Your task to perform on an android device: toggle javascript in the chrome app Image 0: 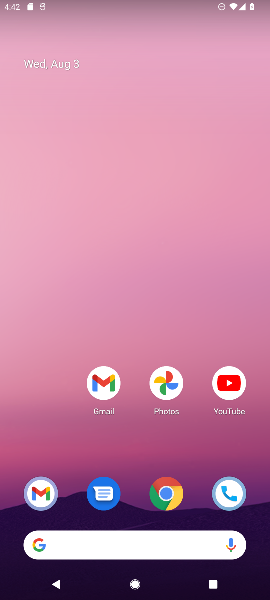
Step 0: press home button
Your task to perform on an android device: toggle javascript in the chrome app Image 1: 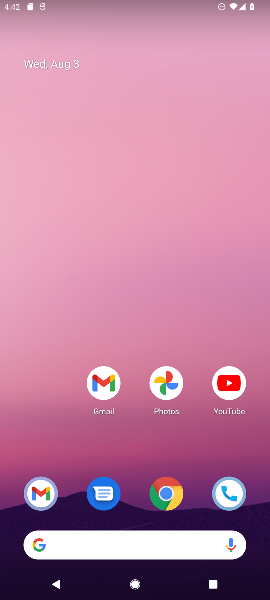
Step 1: drag from (55, 439) to (75, 172)
Your task to perform on an android device: toggle javascript in the chrome app Image 2: 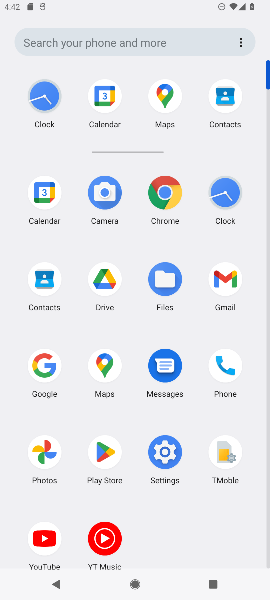
Step 2: click (168, 198)
Your task to perform on an android device: toggle javascript in the chrome app Image 3: 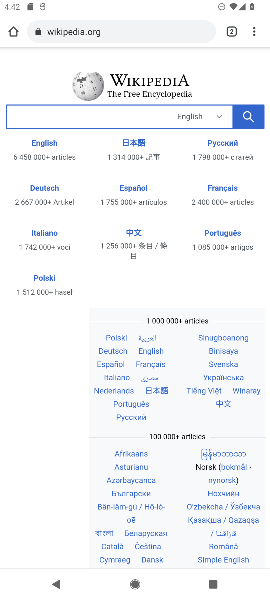
Step 3: click (255, 30)
Your task to perform on an android device: toggle javascript in the chrome app Image 4: 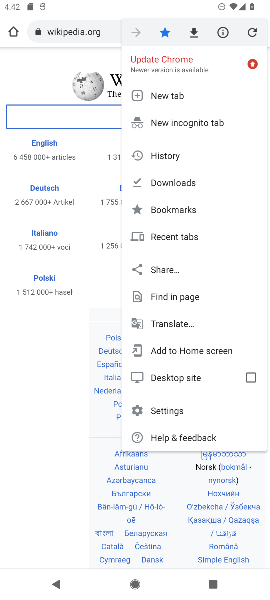
Step 4: click (188, 408)
Your task to perform on an android device: toggle javascript in the chrome app Image 5: 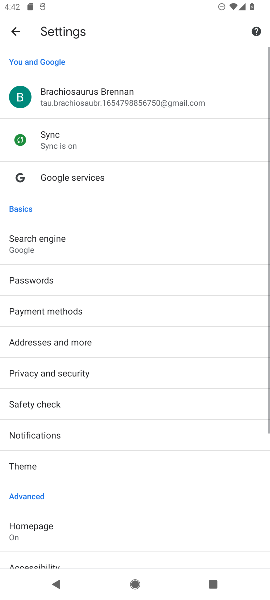
Step 5: drag from (174, 439) to (194, 344)
Your task to perform on an android device: toggle javascript in the chrome app Image 6: 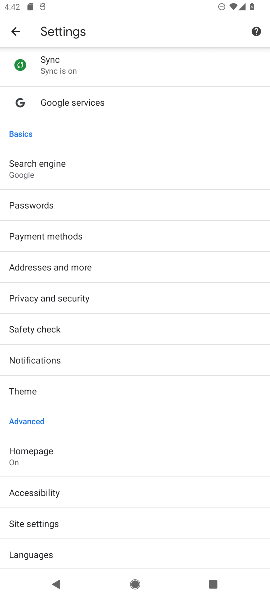
Step 6: drag from (201, 414) to (206, 371)
Your task to perform on an android device: toggle javascript in the chrome app Image 7: 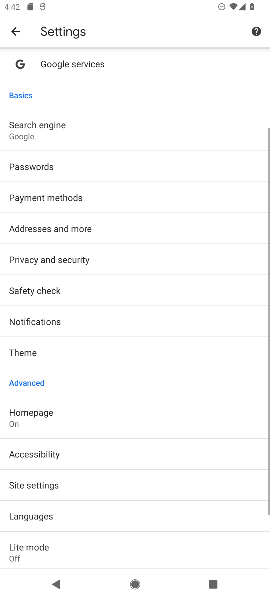
Step 7: drag from (184, 453) to (202, 352)
Your task to perform on an android device: toggle javascript in the chrome app Image 8: 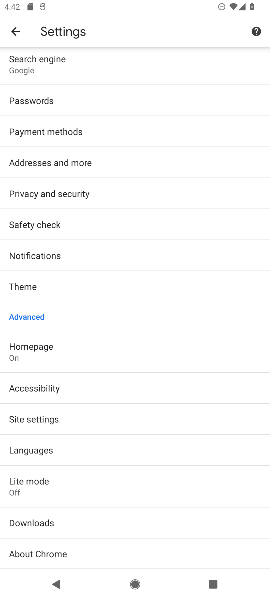
Step 8: drag from (172, 466) to (191, 294)
Your task to perform on an android device: toggle javascript in the chrome app Image 9: 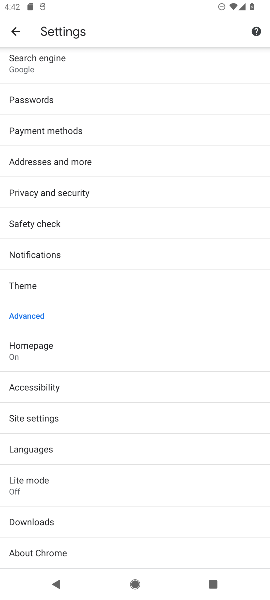
Step 9: click (183, 418)
Your task to perform on an android device: toggle javascript in the chrome app Image 10: 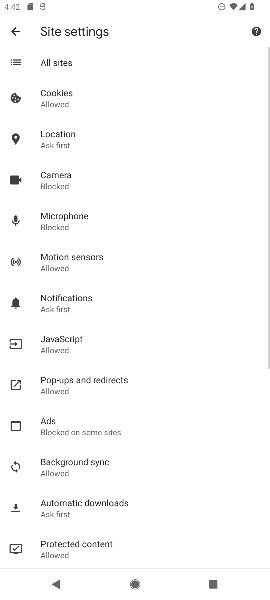
Step 10: drag from (181, 454) to (196, 316)
Your task to perform on an android device: toggle javascript in the chrome app Image 11: 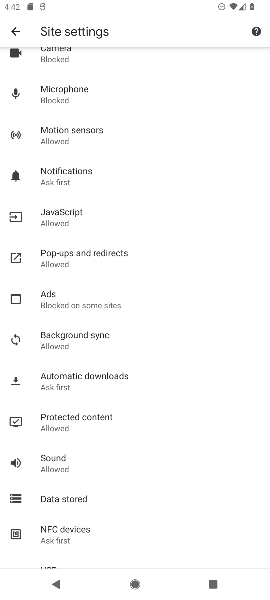
Step 11: drag from (193, 444) to (196, 333)
Your task to perform on an android device: toggle javascript in the chrome app Image 12: 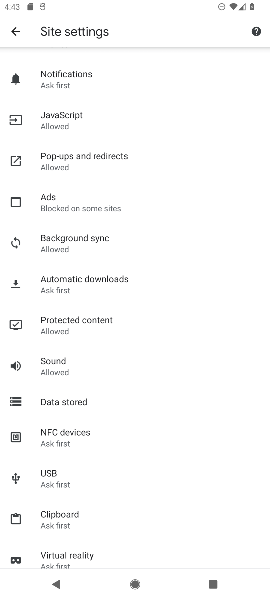
Step 12: drag from (183, 459) to (193, 371)
Your task to perform on an android device: toggle javascript in the chrome app Image 13: 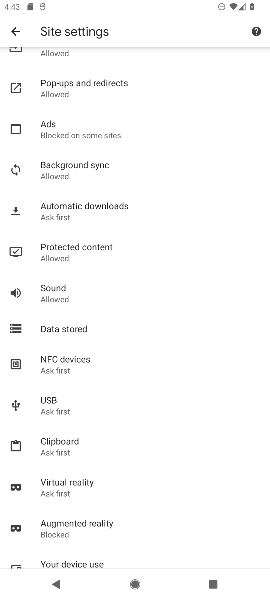
Step 13: drag from (190, 204) to (191, 325)
Your task to perform on an android device: toggle javascript in the chrome app Image 14: 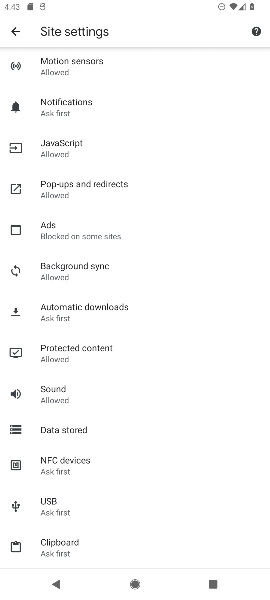
Step 14: drag from (190, 187) to (182, 326)
Your task to perform on an android device: toggle javascript in the chrome app Image 15: 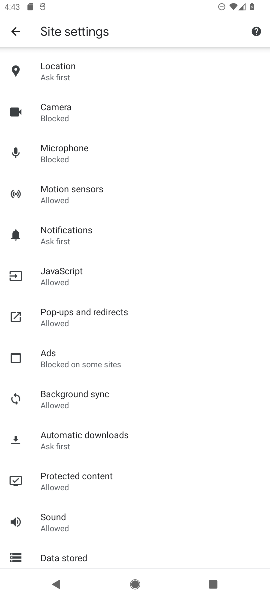
Step 15: drag from (179, 161) to (173, 281)
Your task to perform on an android device: toggle javascript in the chrome app Image 16: 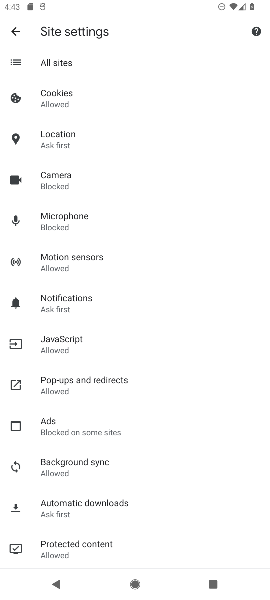
Step 16: click (96, 343)
Your task to perform on an android device: toggle javascript in the chrome app Image 17: 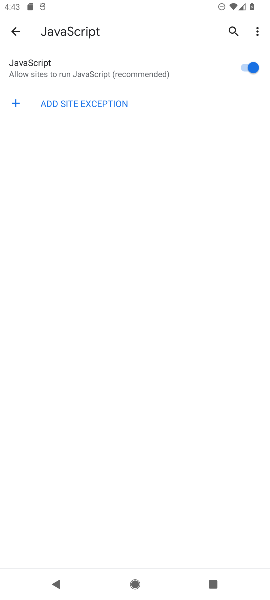
Step 17: click (252, 67)
Your task to perform on an android device: toggle javascript in the chrome app Image 18: 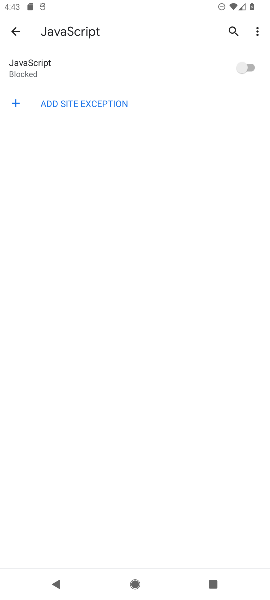
Step 18: task complete